Your task to perform on an android device: turn off priority inbox in the gmail app Image 0: 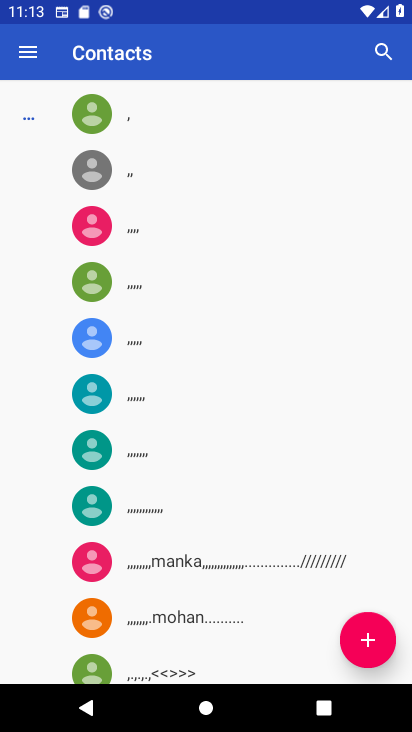
Step 0: press home button
Your task to perform on an android device: turn off priority inbox in the gmail app Image 1: 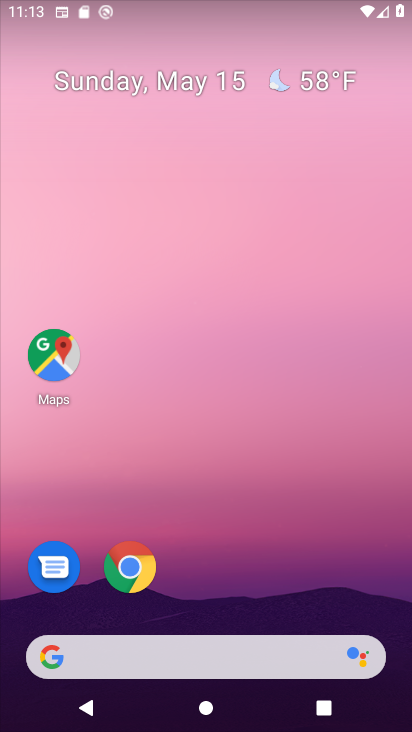
Step 1: drag from (228, 583) to (304, 14)
Your task to perform on an android device: turn off priority inbox in the gmail app Image 2: 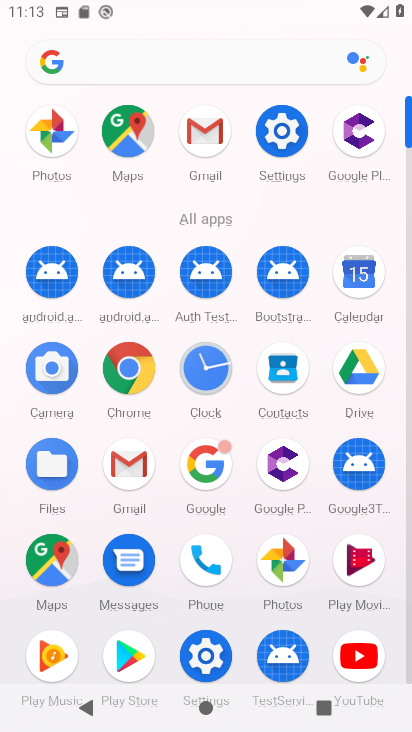
Step 2: click (212, 168)
Your task to perform on an android device: turn off priority inbox in the gmail app Image 3: 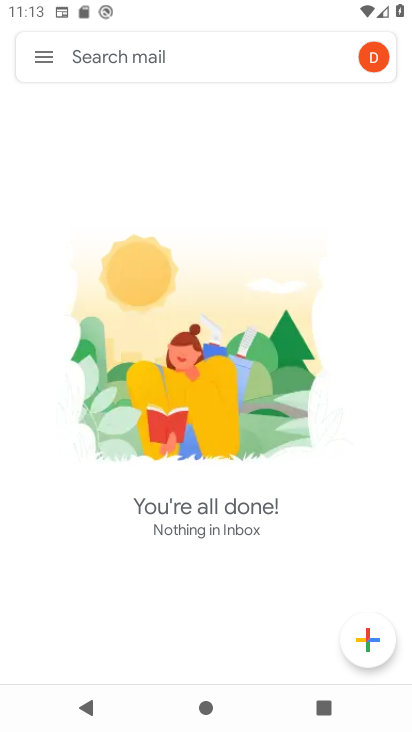
Step 3: click (46, 70)
Your task to perform on an android device: turn off priority inbox in the gmail app Image 4: 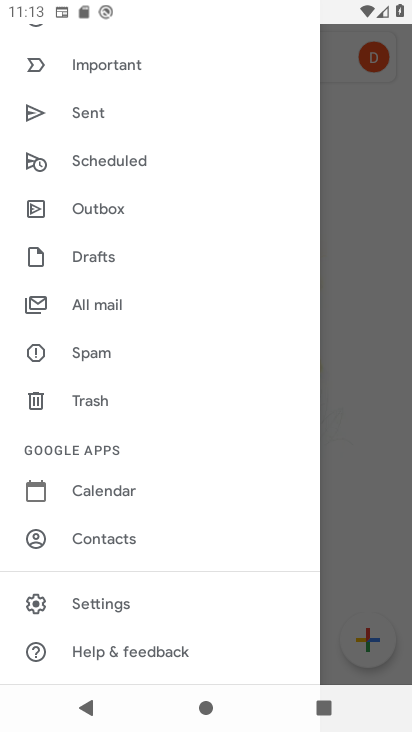
Step 4: click (141, 616)
Your task to perform on an android device: turn off priority inbox in the gmail app Image 5: 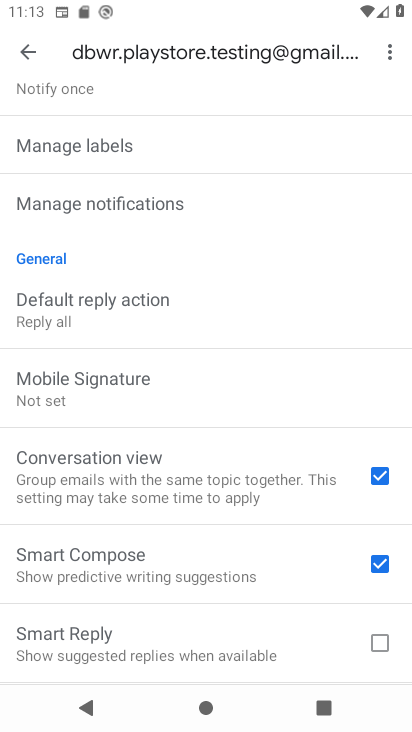
Step 5: drag from (139, 197) to (143, 570)
Your task to perform on an android device: turn off priority inbox in the gmail app Image 6: 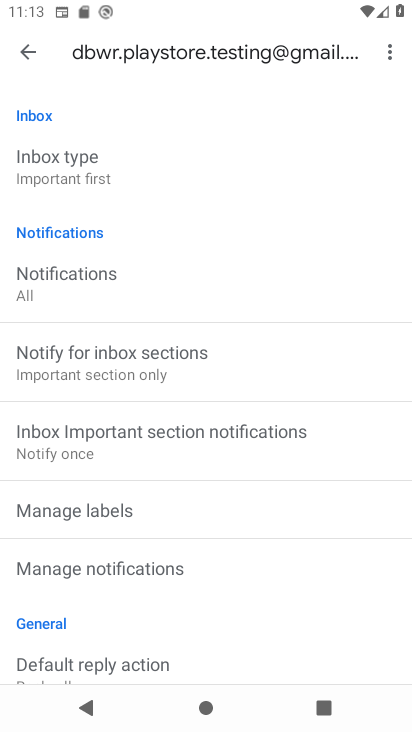
Step 6: drag from (218, 132) to (253, 520)
Your task to perform on an android device: turn off priority inbox in the gmail app Image 7: 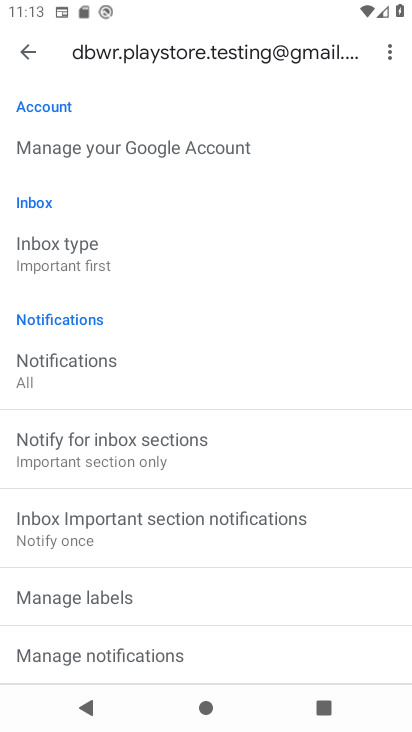
Step 7: drag from (185, 220) to (170, 661)
Your task to perform on an android device: turn off priority inbox in the gmail app Image 8: 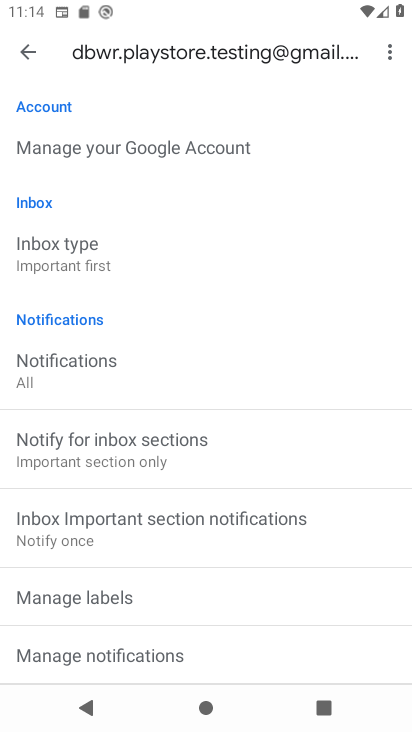
Step 8: click (110, 287)
Your task to perform on an android device: turn off priority inbox in the gmail app Image 9: 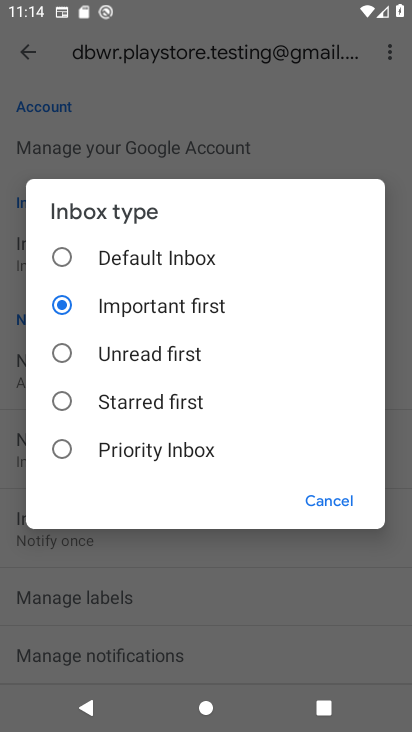
Step 9: task complete